Your task to perform on an android device: turn off notifications settings in the gmail app Image 0: 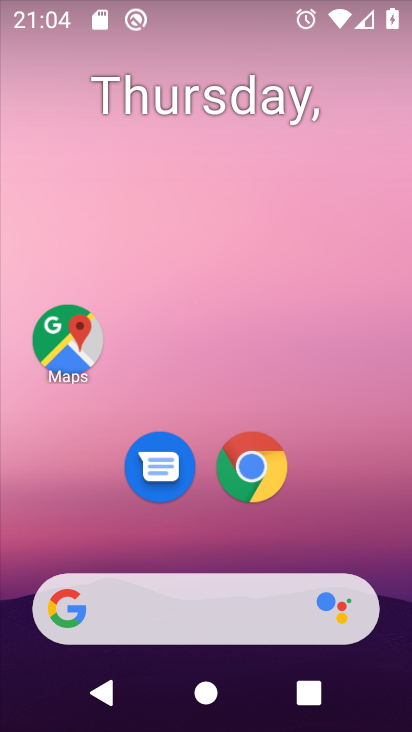
Step 0: drag from (297, 526) to (285, 205)
Your task to perform on an android device: turn off notifications settings in the gmail app Image 1: 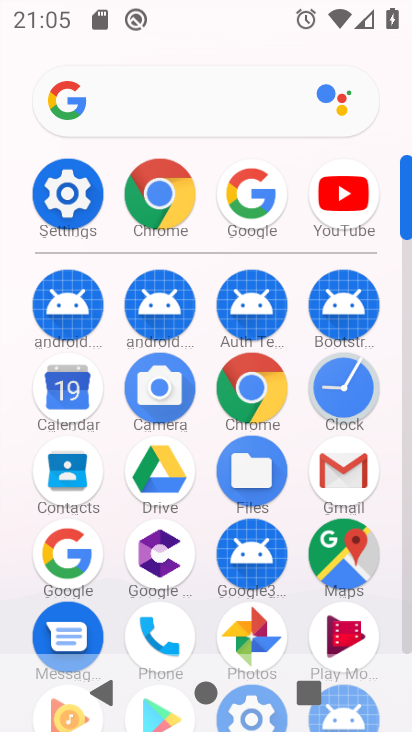
Step 1: click (346, 475)
Your task to perform on an android device: turn off notifications settings in the gmail app Image 2: 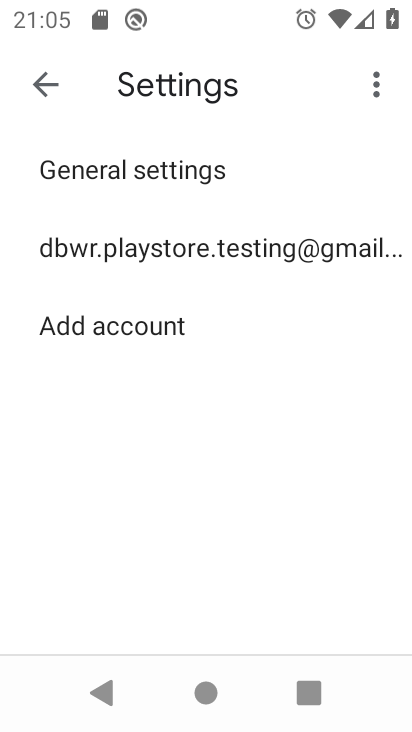
Step 2: click (191, 263)
Your task to perform on an android device: turn off notifications settings in the gmail app Image 3: 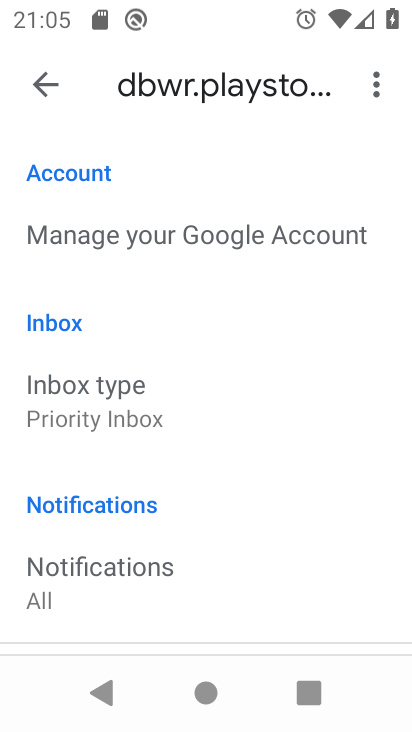
Step 3: click (206, 569)
Your task to perform on an android device: turn off notifications settings in the gmail app Image 4: 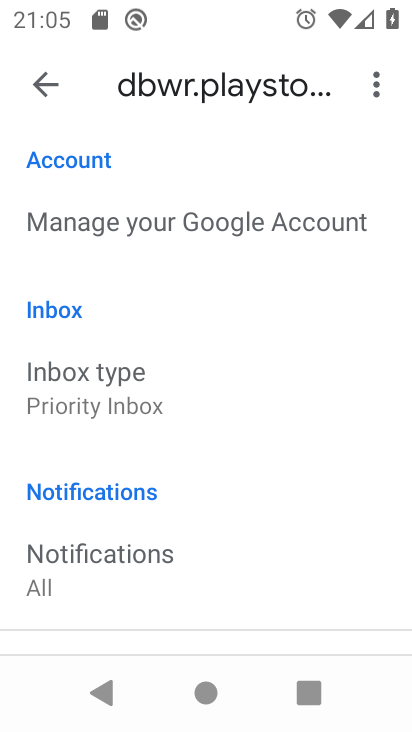
Step 4: click (151, 563)
Your task to perform on an android device: turn off notifications settings in the gmail app Image 5: 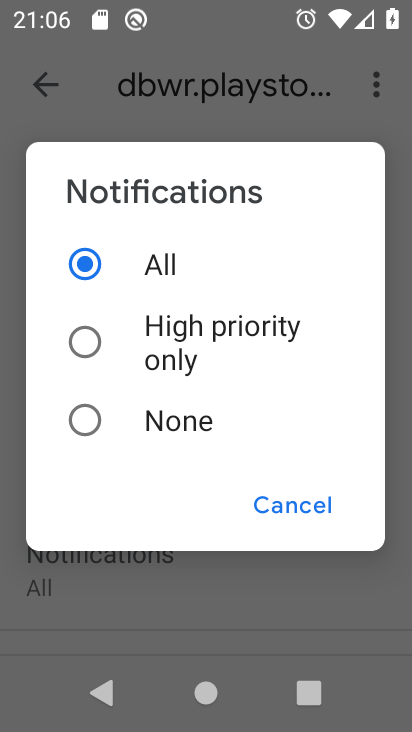
Step 5: click (169, 431)
Your task to perform on an android device: turn off notifications settings in the gmail app Image 6: 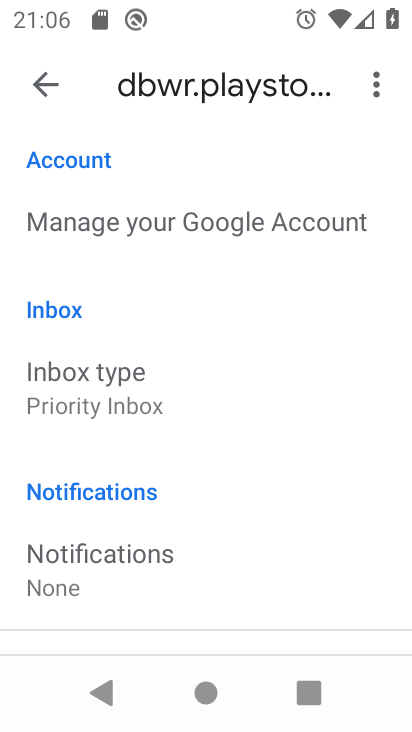
Step 6: task complete